Your task to perform on an android device: set an alarm Image 0: 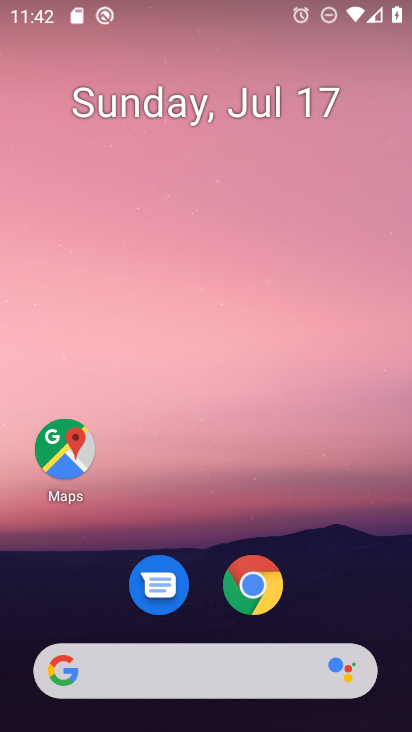
Step 0: drag from (322, 544) to (308, 10)
Your task to perform on an android device: set an alarm Image 1: 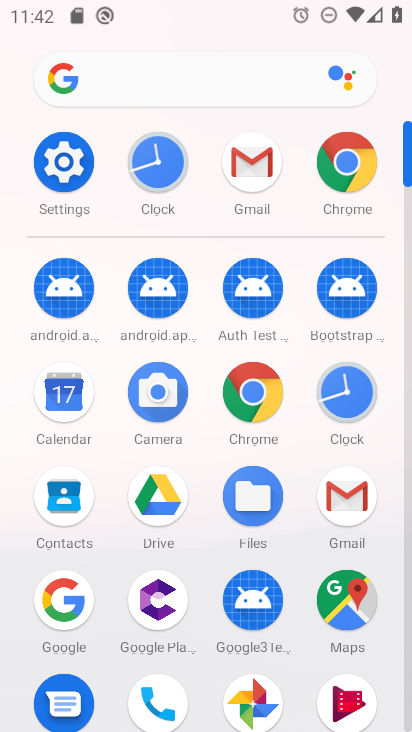
Step 1: click (161, 158)
Your task to perform on an android device: set an alarm Image 2: 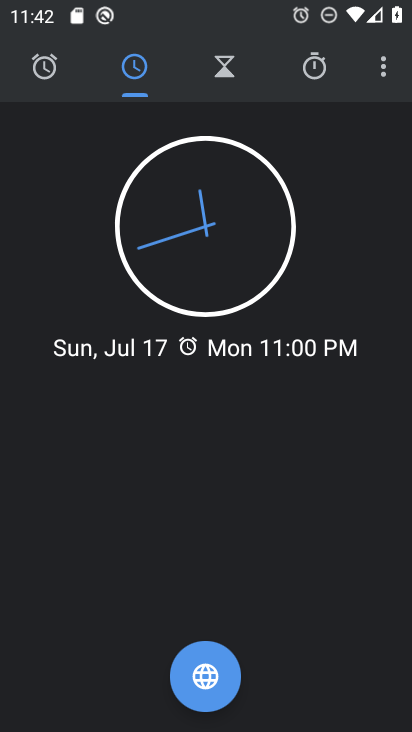
Step 2: click (306, 61)
Your task to perform on an android device: set an alarm Image 3: 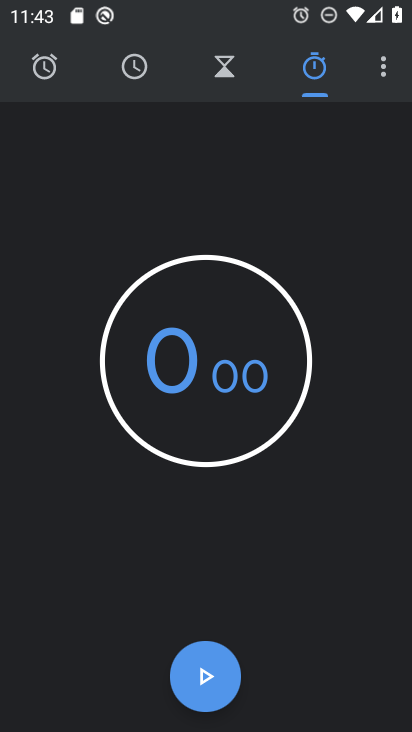
Step 3: task complete